Your task to perform on an android device: What is the recent news? Image 0: 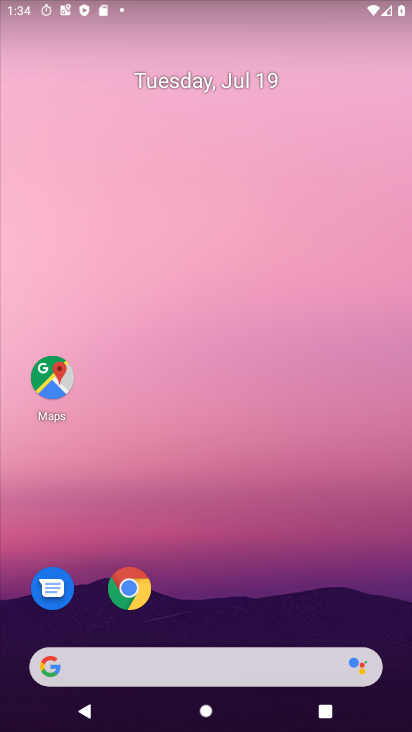
Step 0: click (77, 655)
Your task to perform on an android device: What is the recent news? Image 1: 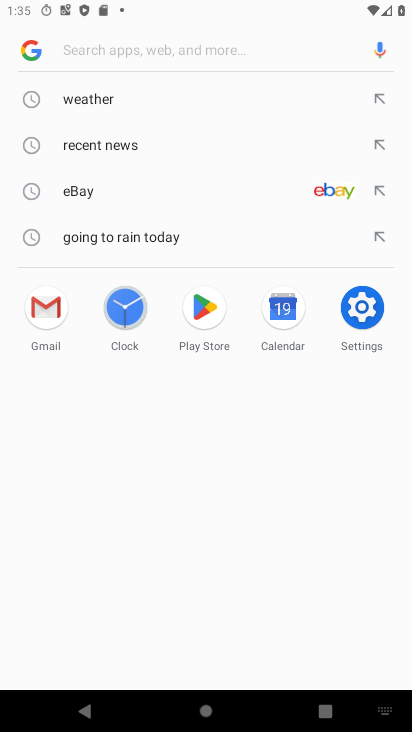
Step 1: type "What is the recent news?"
Your task to perform on an android device: What is the recent news? Image 2: 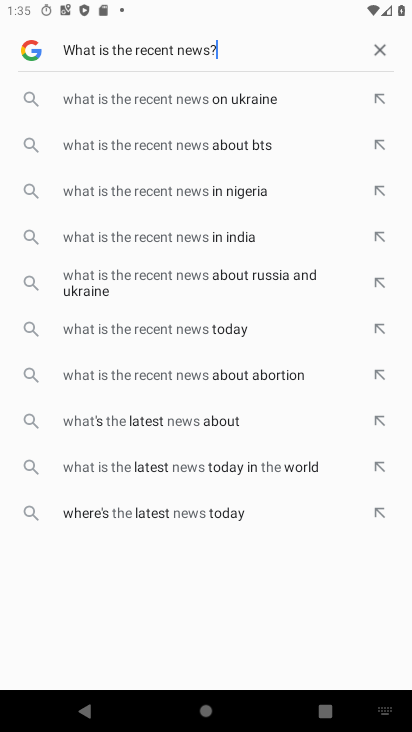
Step 2: type ""
Your task to perform on an android device: What is the recent news? Image 3: 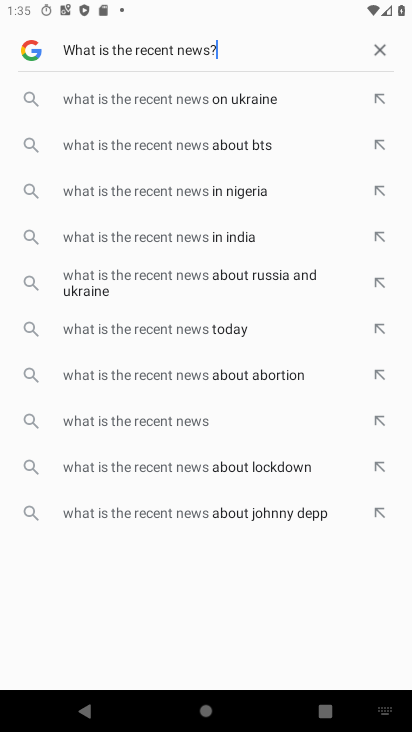
Step 3: task complete